Your task to perform on an android device: toggle pop-ups in chrome Image 0: 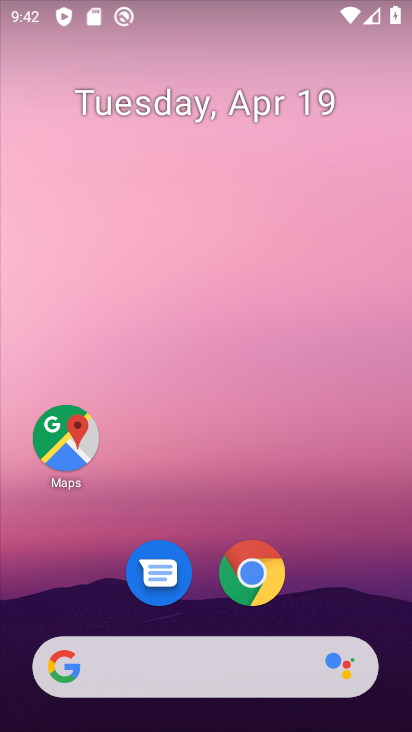
Step 0: click (407, 580)
Your task to perform on an android device: toggle pop-ups in chrome Image 1: 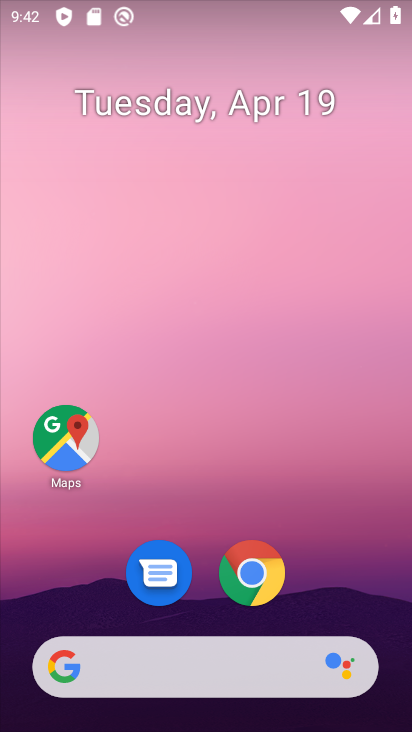
Step 1: drag from (357, 588) to (372, 97)
Your task to perform on an android device: toggle pop-ups in chrome Image 2: 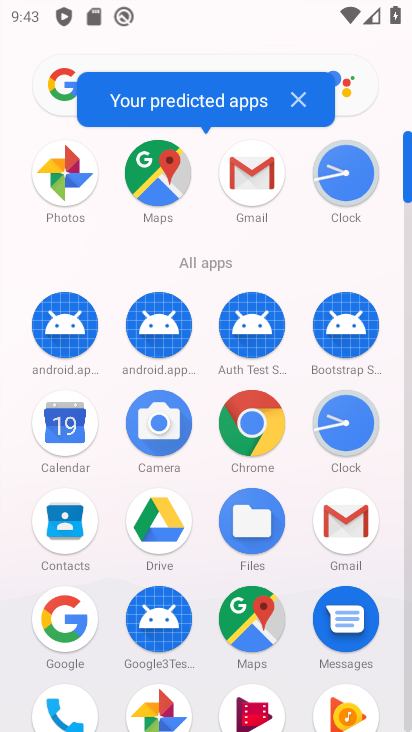
Step 2: click (267, 419)
Your task to perform on an android device: toggle pop-ups in chrome Image 3: 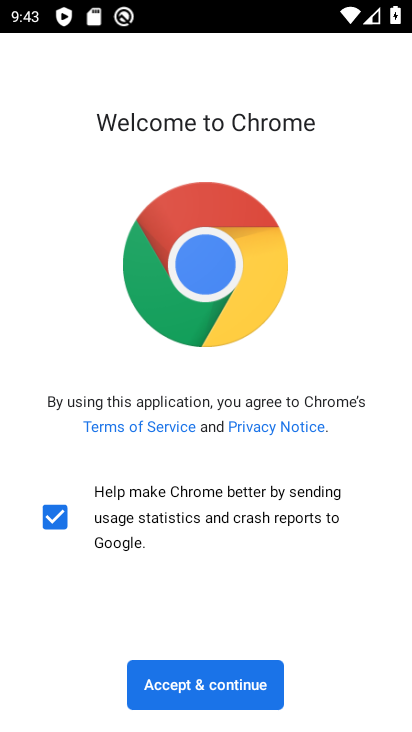
Step 3: click (213, 696)
Your task to perform on an android device: toggle pop-ups in chrome Image 4: 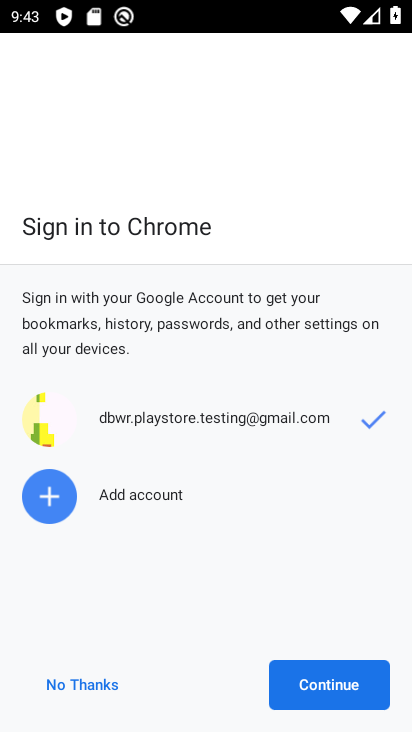
Step 4: click (346, 679)
Your task to perform on an android device: toggle pop-ups in chrome Image 5: 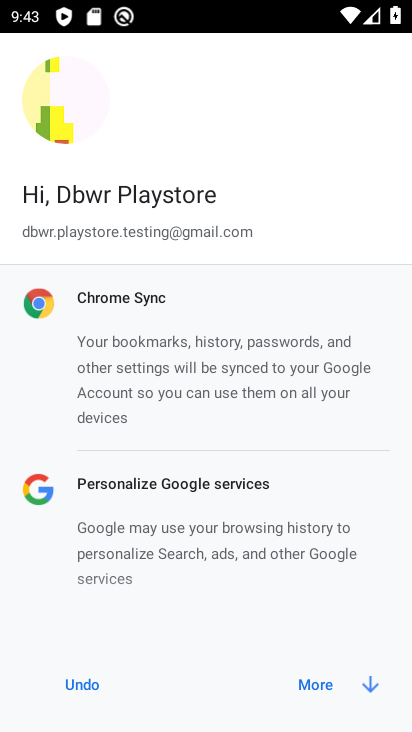
Step 5: click (322, 687)
Your task to perform on an android device: toggle pop-ups in chrome Image 6: 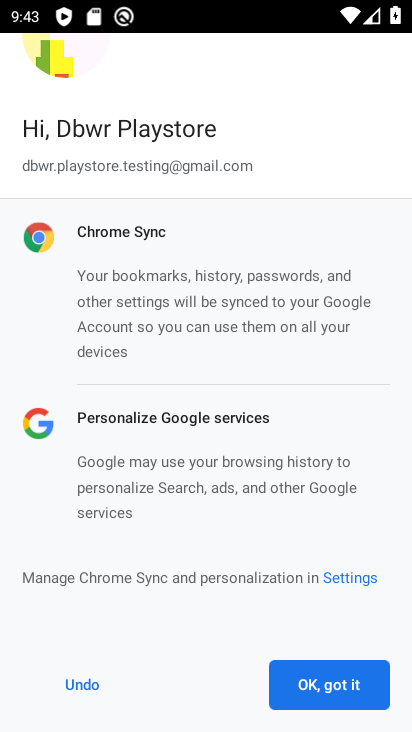
Step 6: click (354, 686)
Your task to perform on an android device: toggle pop-ups in chrome Image 7: 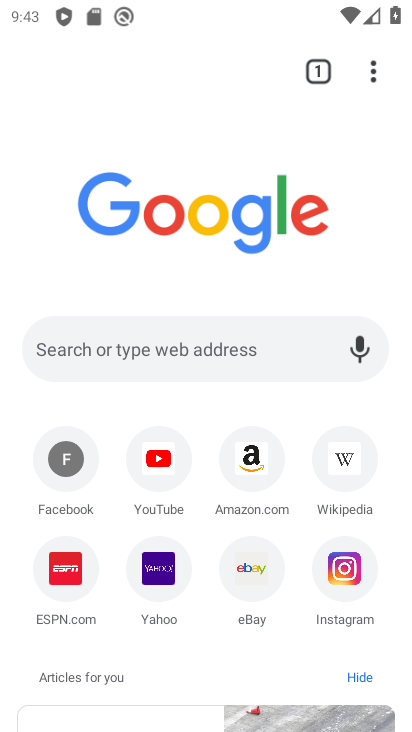
Step 7: click (376, 78)
Your task to perform on an android device: toggle pop-ups in chrome Image 8: 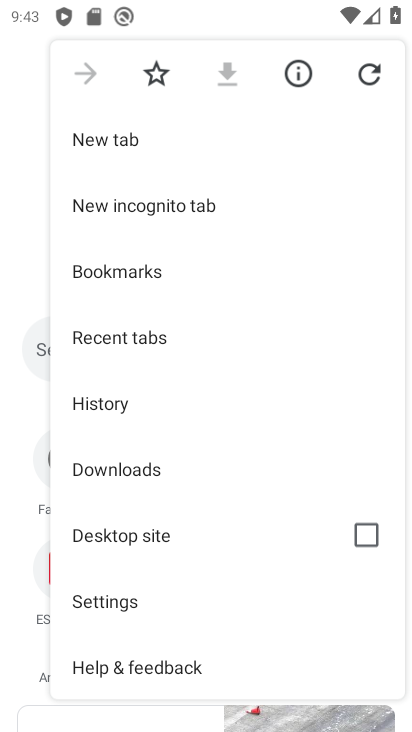
Step 8: drag from (295, 536) to (295, 216)
Your task to perform on an android device: toggle pop-ups in chrome Image 9: 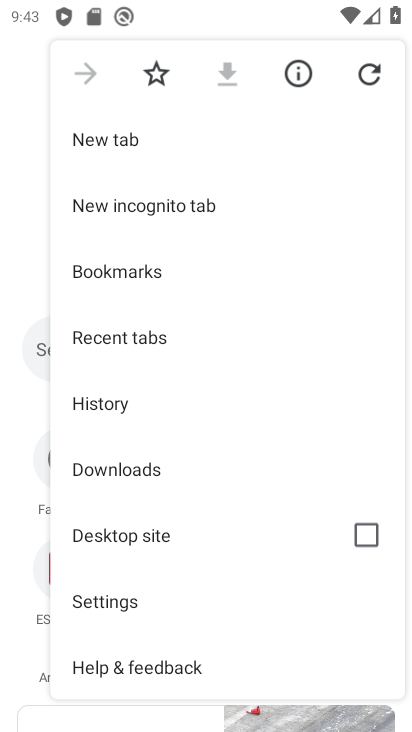
Step 9: click (120, 604)
Your task to perform on an android device: toggle pop-ups in chrome Image 10: 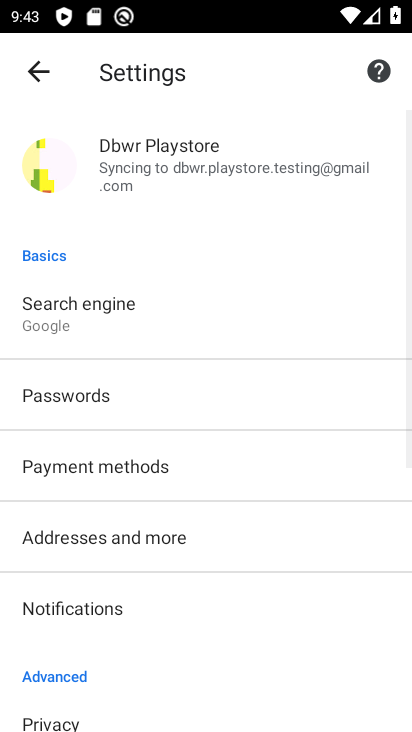
Step 10: drag from (306, 599) to (345, 284)
Your task to perform on an android device: toggle pop-ups in chrome Image 11: 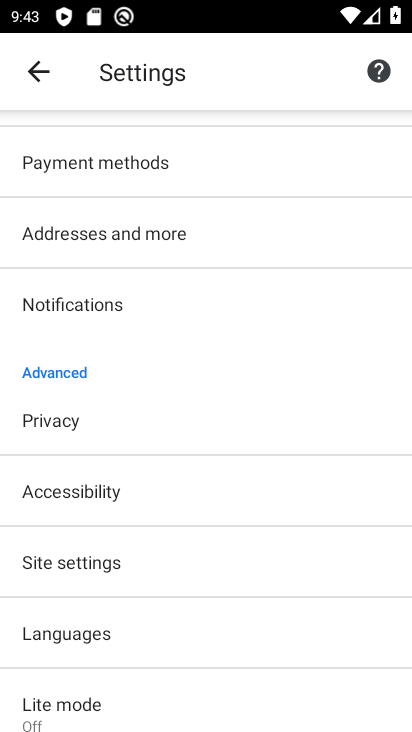
Step 11: drag from (296, 607) to (294, 332)
Your task to perform on an android device: toggle pop-ups in chrome Image 12: 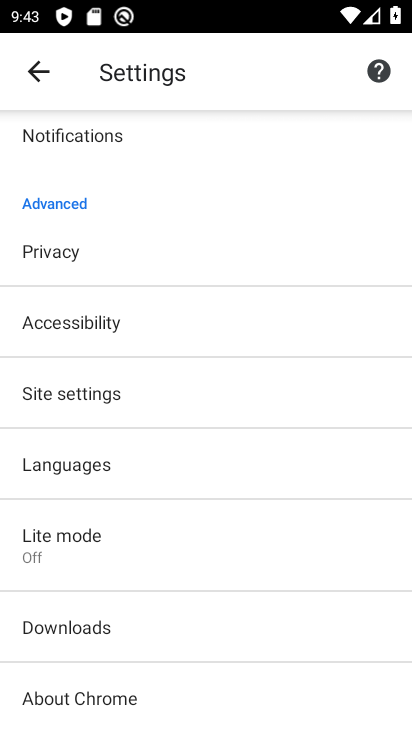
Step 12: click (169, 387)
Your task to perform on an android device: toggle pop-ups in chrome Image 13: 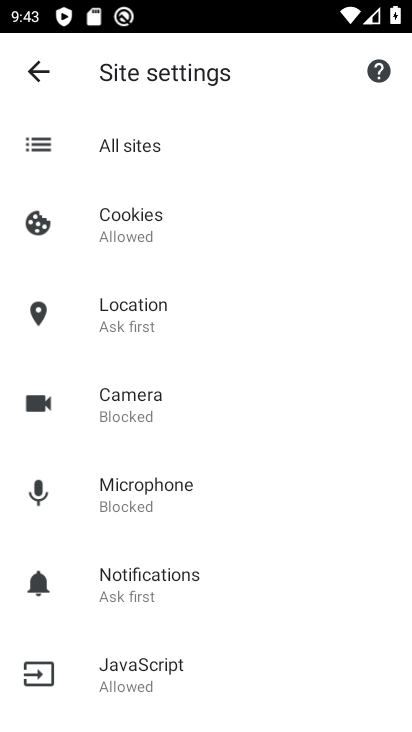
Step 13: drag from (287, 603) to (319, 323)
Your task to perform on an android device: toggle pop-ups in chrome Image 14: 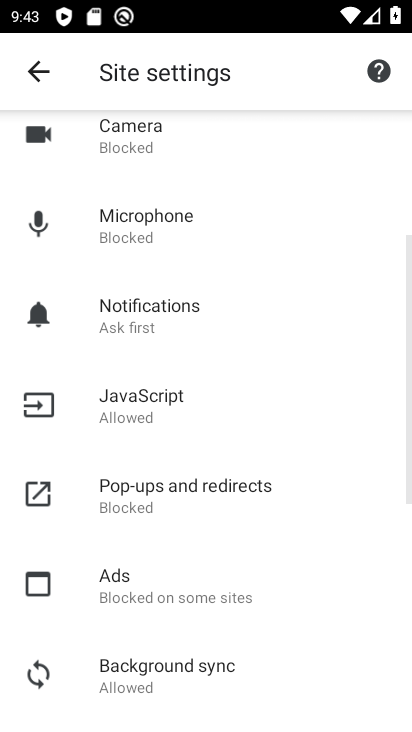
Step 14: drag from (333, 583) to (376, 336)
Your task to perform on an android device: toggle pop-ups in chrome Image 15: 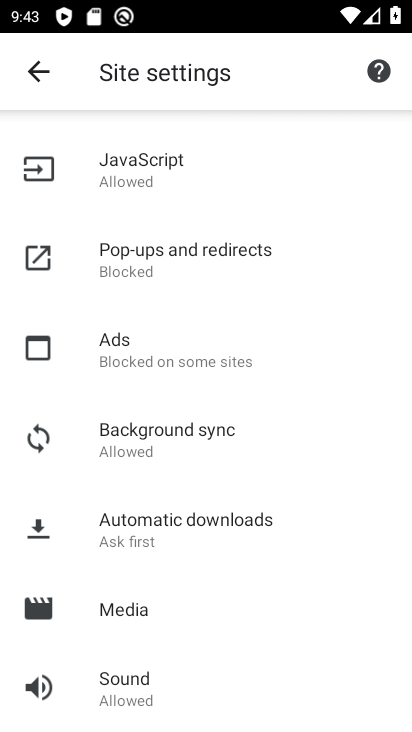
Step 15: drag from (329, 604) to (357, 328)
Your task to perform on an android device: toggle pop-ups in chrome Image 16: 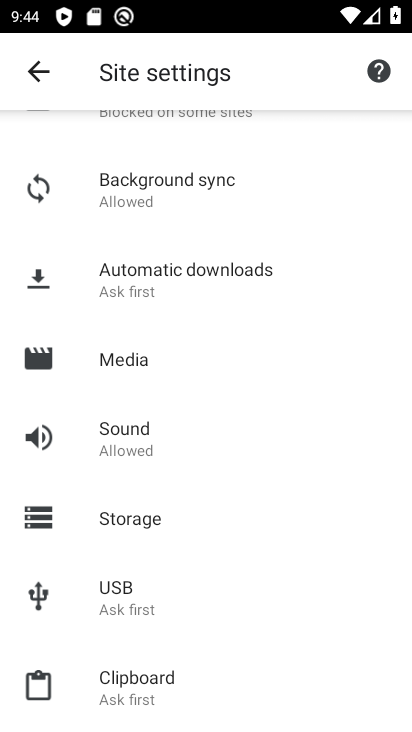
Step 16: drag from (368, 235) to (345, 490)
Your task to perform on an android device: toggle pop-ups in chrome Image 17: 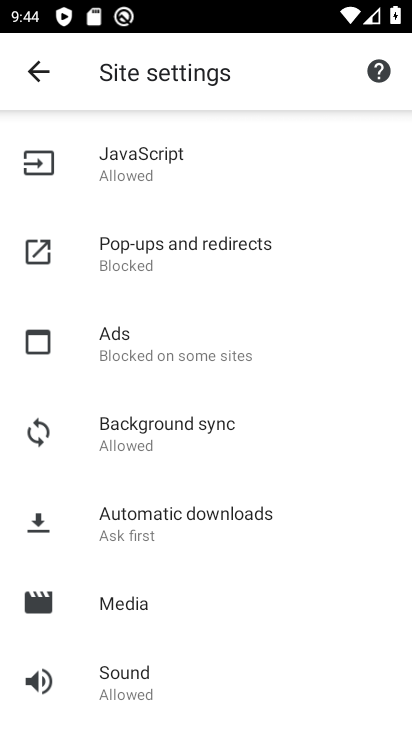
Step 17: click (216, 237)
Your task to perform on an android device: toggle pop-ups in chrome Image 18: 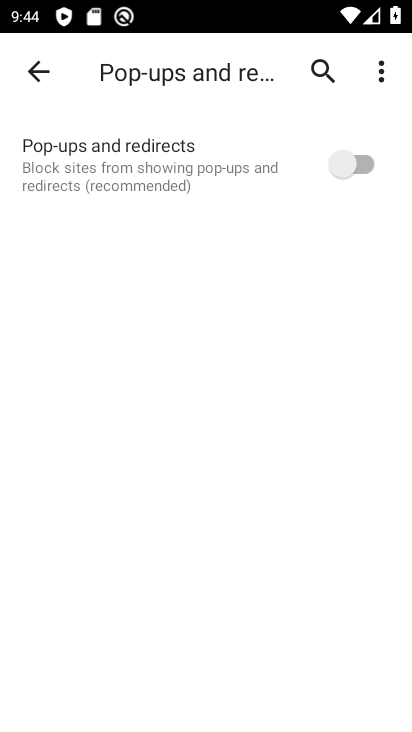
Step 18: click (347, 173)
Your task to perform on an android device: toggle pop-ups in chrome Image 19: 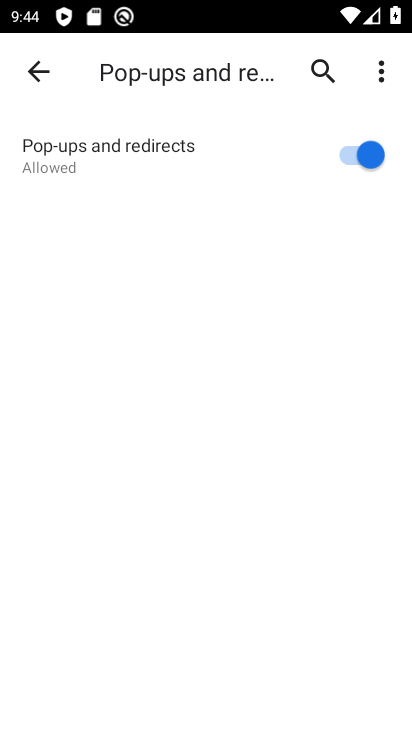
Step 19: task complete